Your task to perform on an android device: uninstall "Messenger Lite" Image 0: 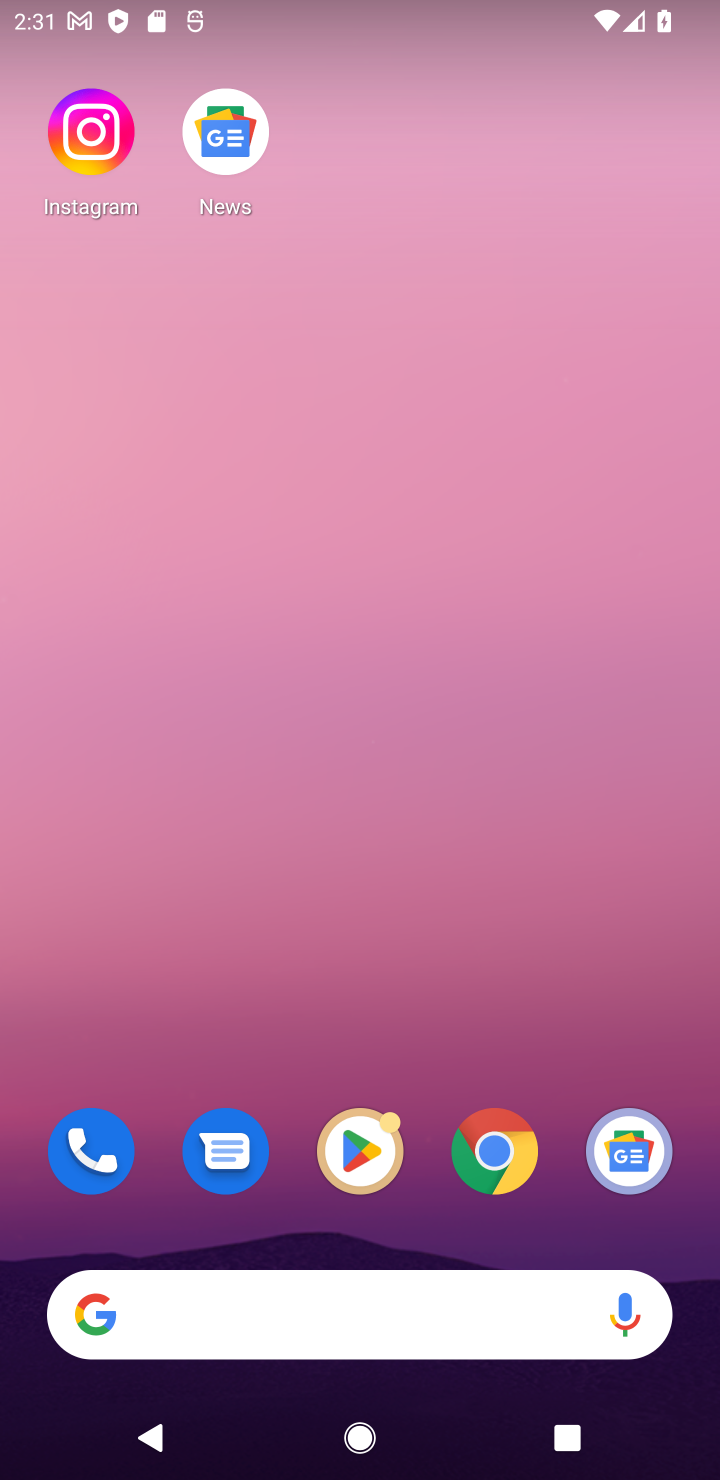
Step 0: press home button
Your task to perform on an android device: uninstall "Messenger Lite" Image 1: 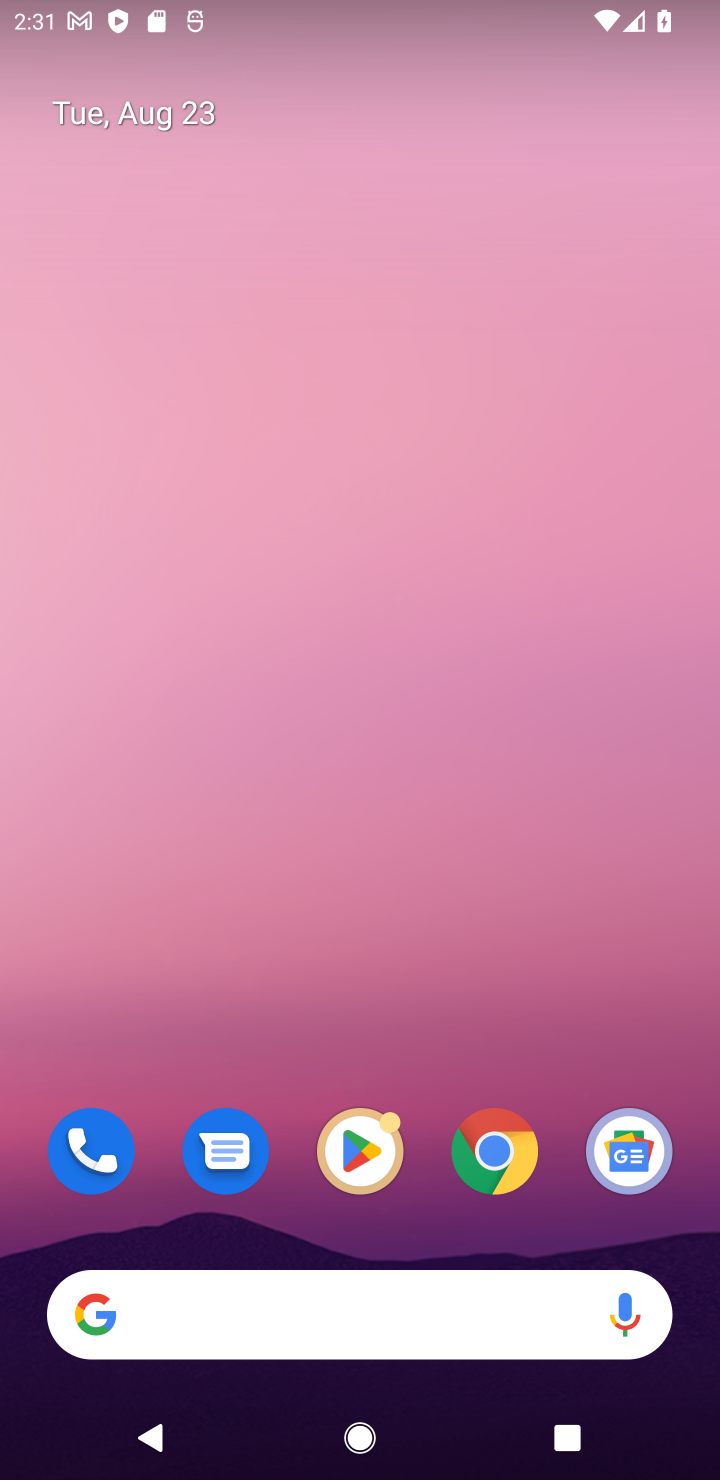
Step 1: click (356, 1163)
Your task to perform on an android device: uninstall "Messenger Lite" Image 2: 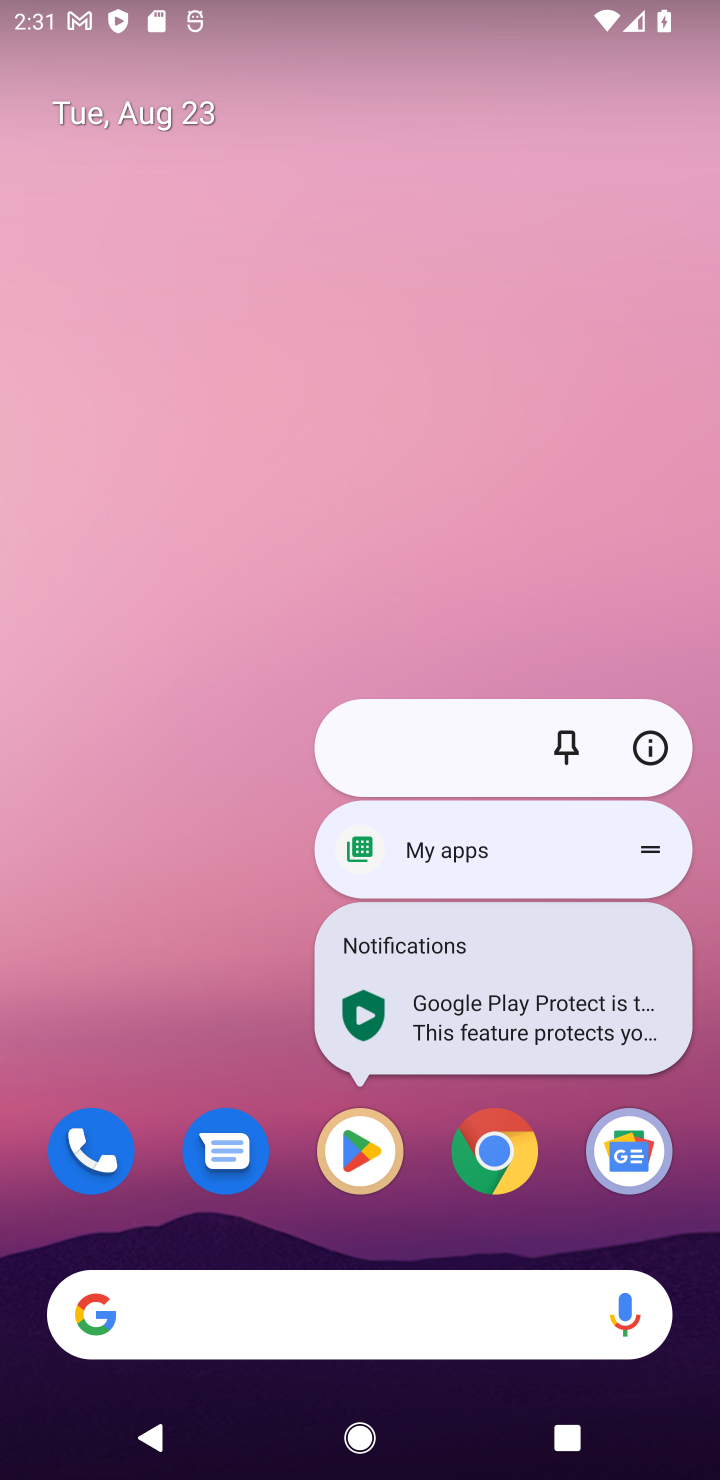
Step 2: click (356, 1161)
Your task to perform on an android device: uninstall "Messenger Lite" Image 3: 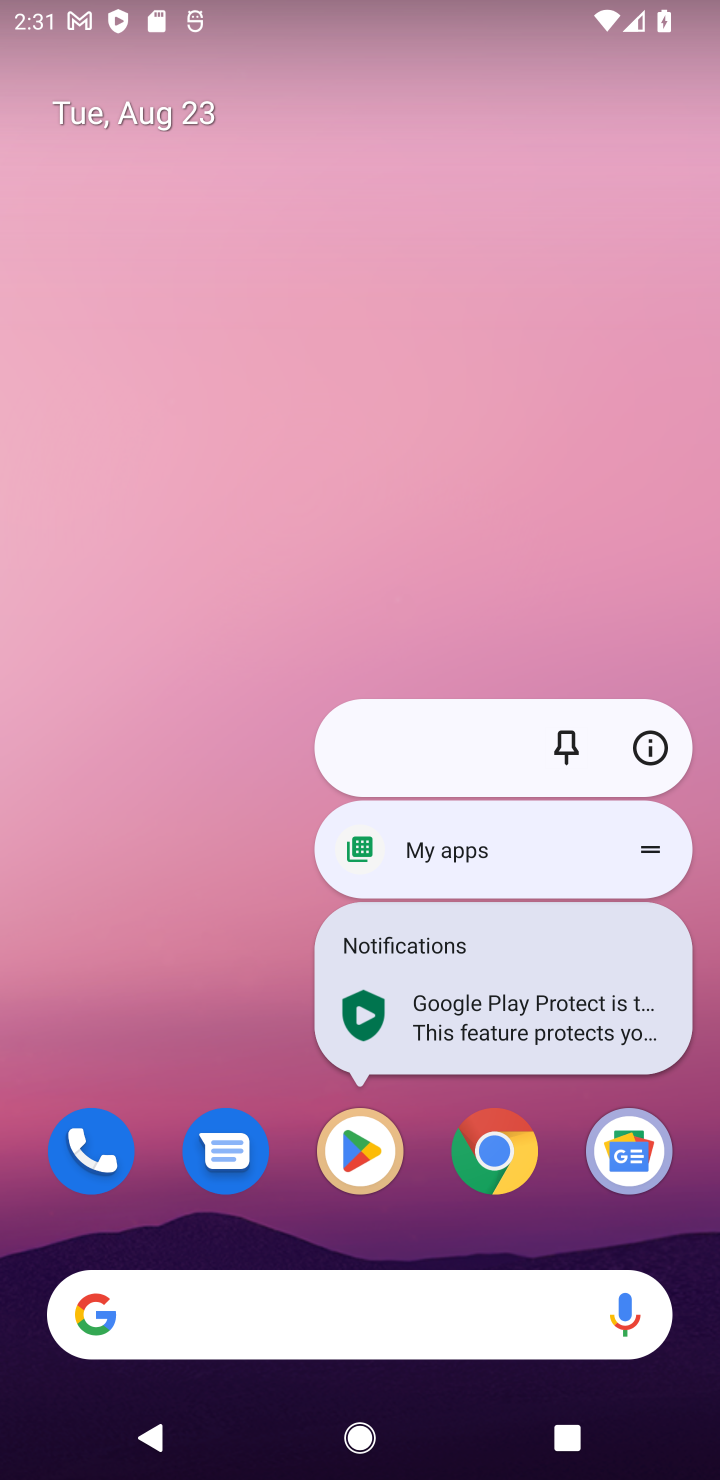
Step 3: click (356, 1166)
Your task to perform on an android device: uninstall "Messenger Lite" Image 4: 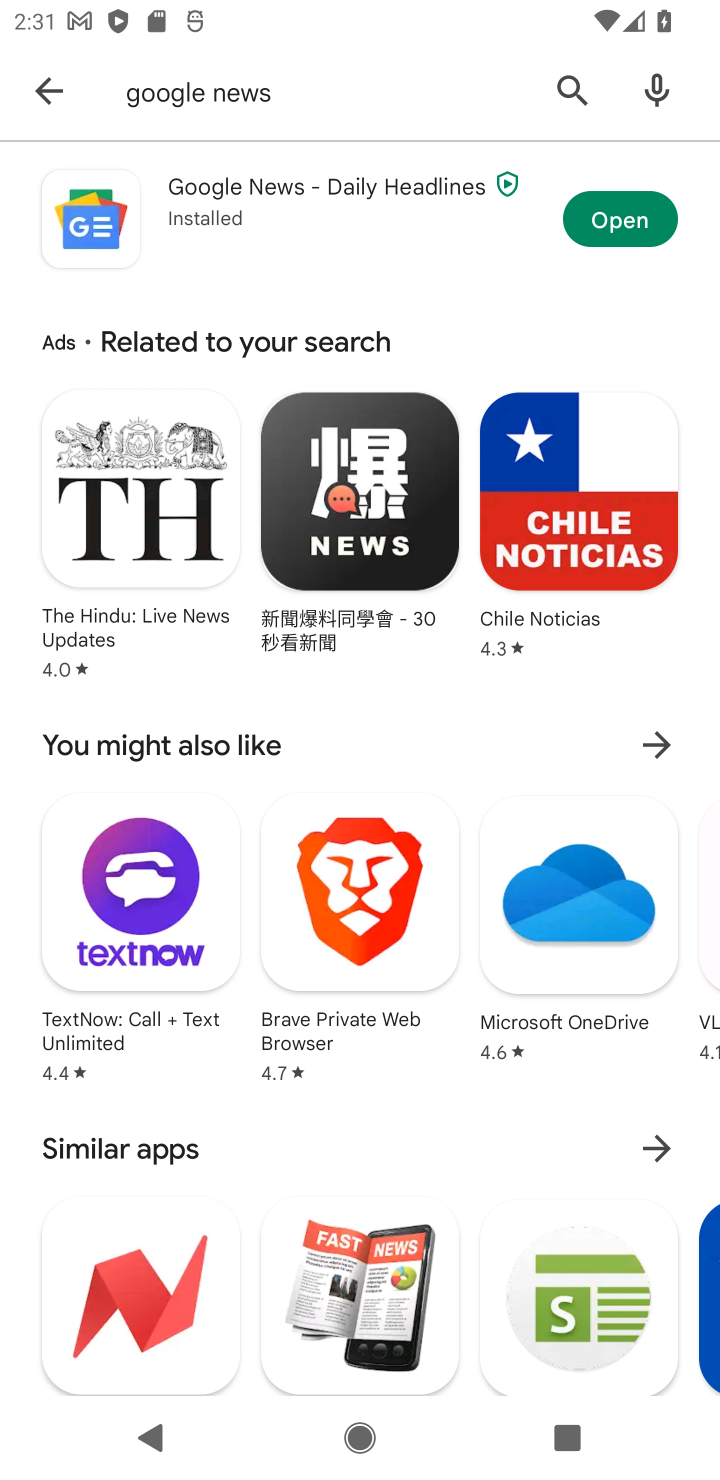
Step 4: click (561, 71)
Your task to perform on an android device: uninstall "Messenger Lite" Image 5: 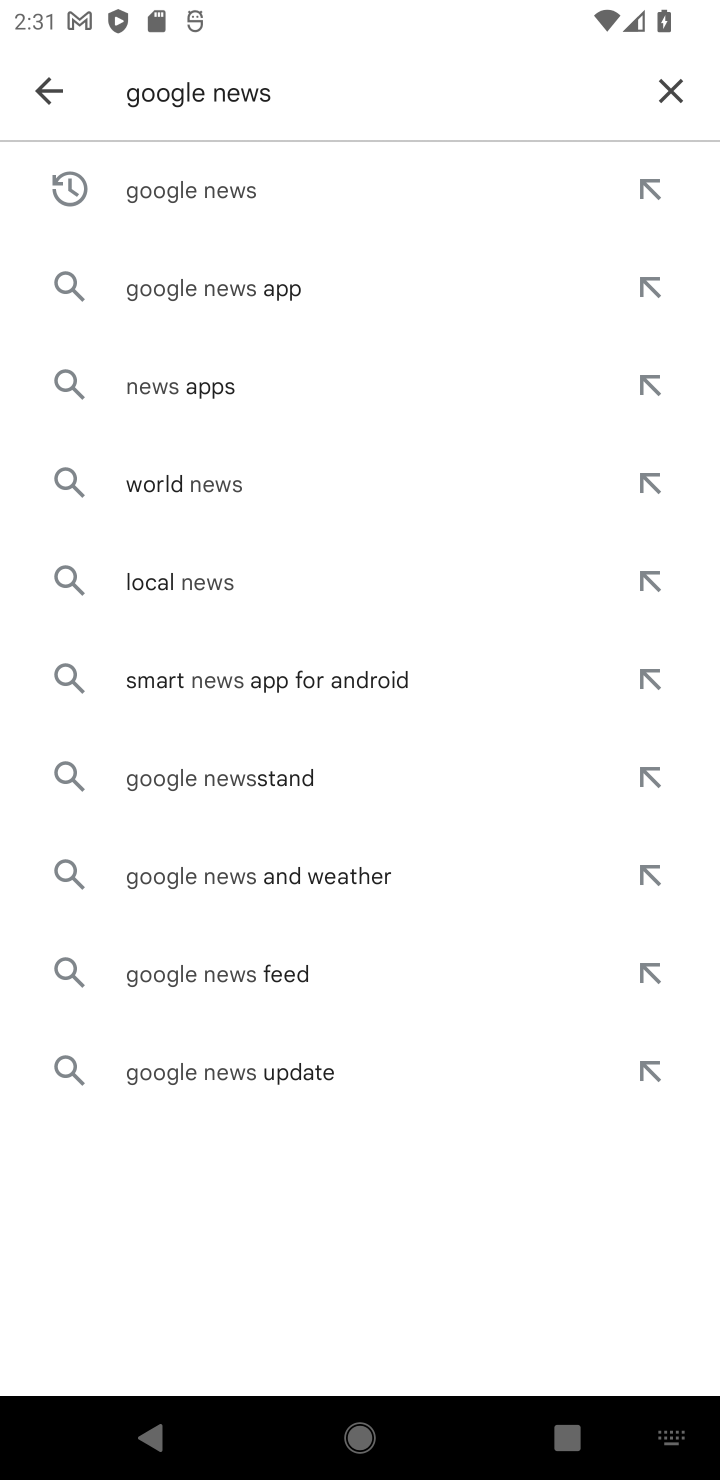
Step 5: click (669, 78)
Your task to perform on an android device: uninstall "Messenger Lite" Image 6: 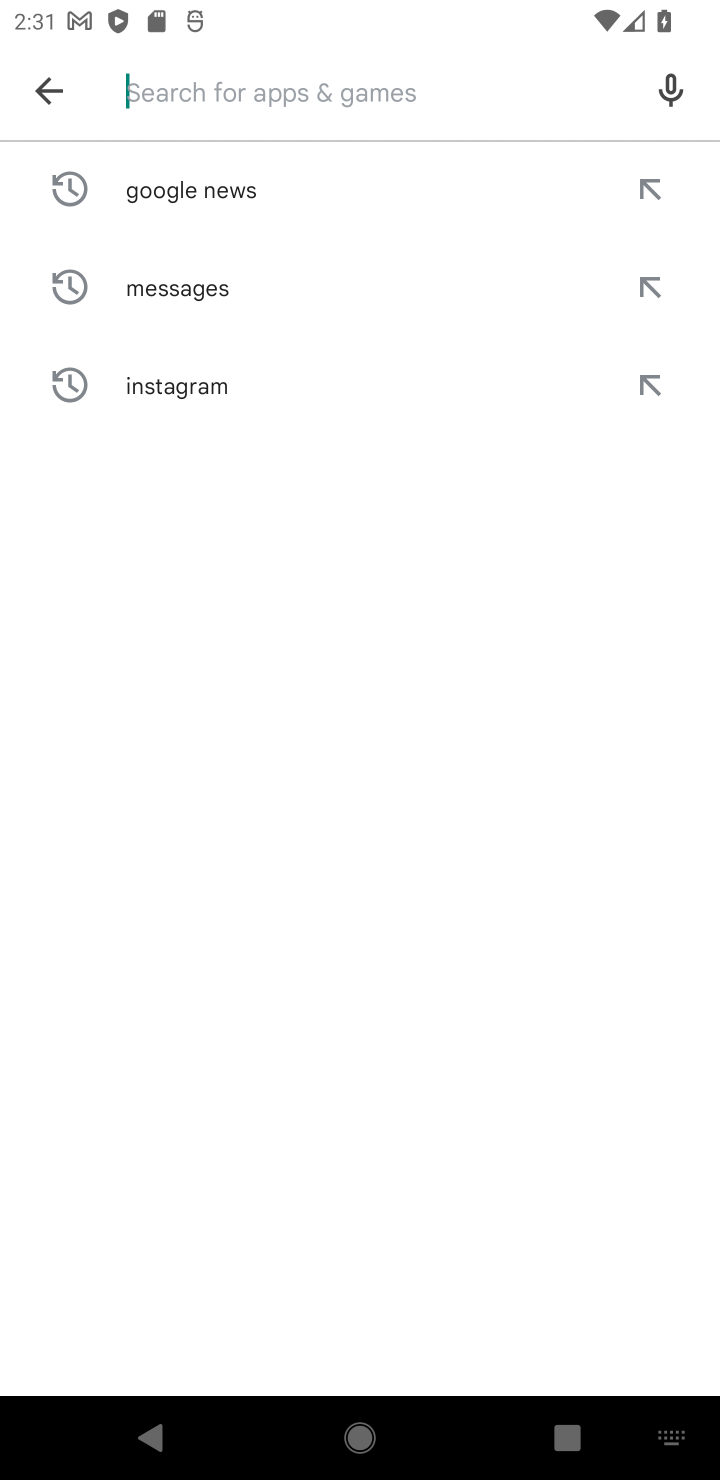
Step 6: type "Messenger Lite"
Your task to perform on an android device: uninstall "Messenger Lite" Image 7: 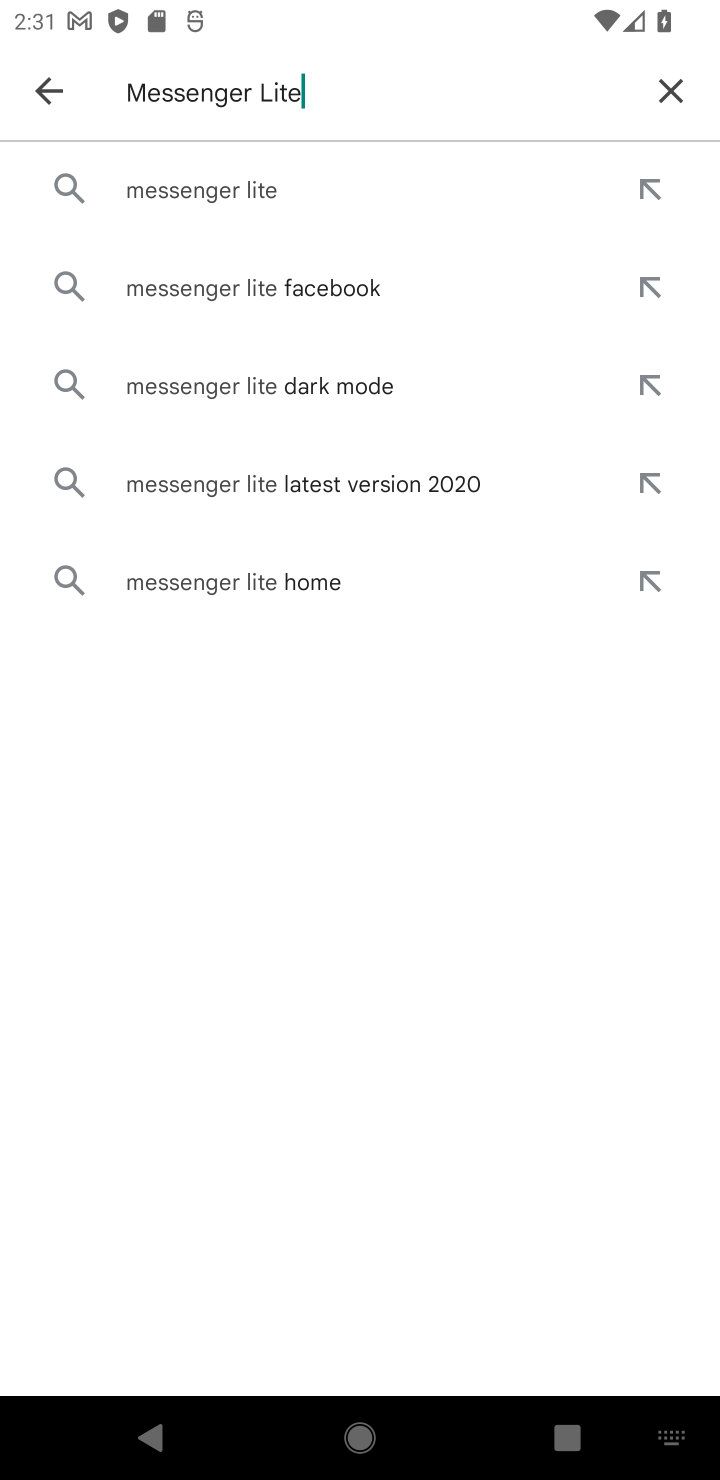
Step 7: click (169, 183)
Your task to perform on an android device: uninstall "Messenger Lite" Image 8: 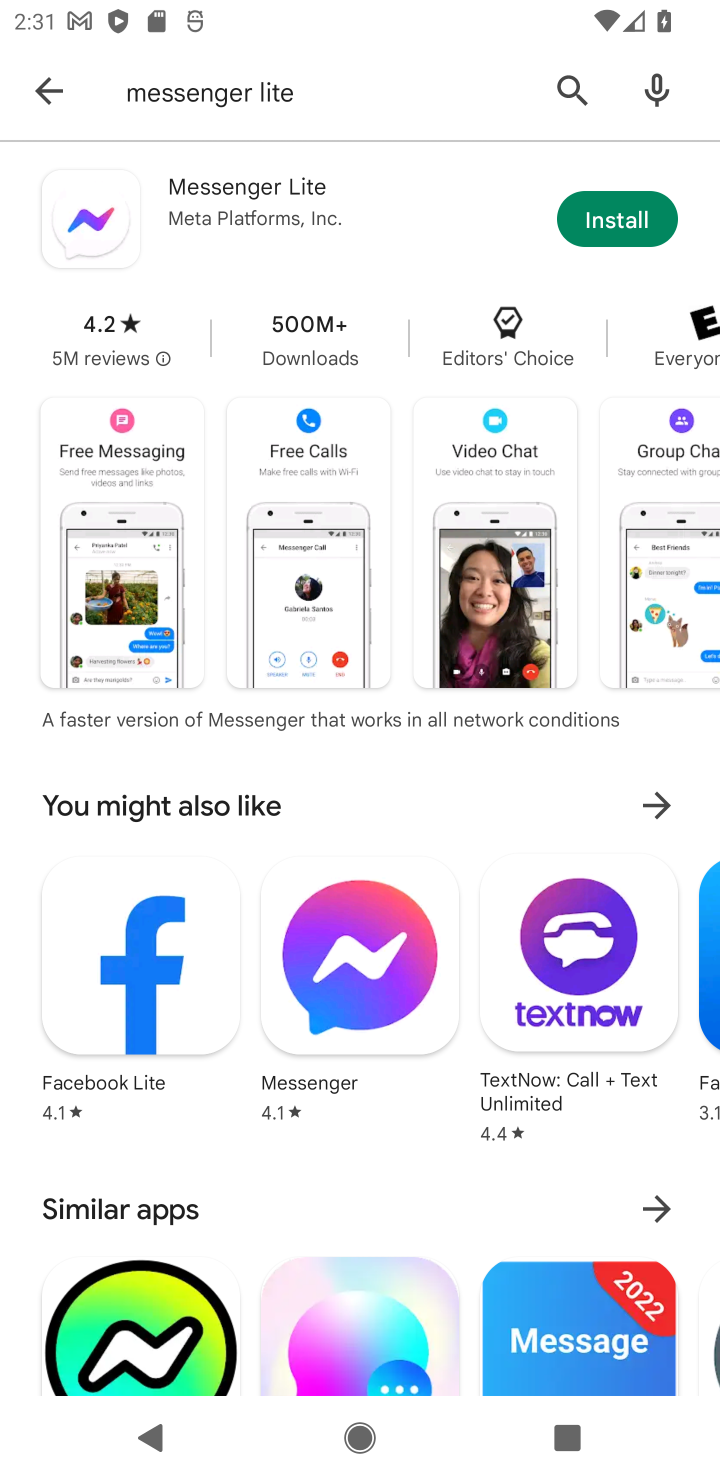
Step 8: task complete